Your task to perform on an android device: turn on the 24-hour format for clock Image 0: 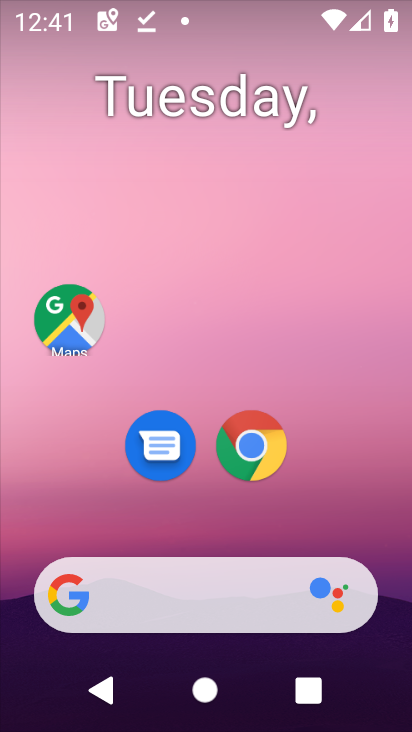
Step 0: drag from (344, 480) to (370, 323)
Your task to perform on an android device: turn on the 24-hour format for clock Image 1: 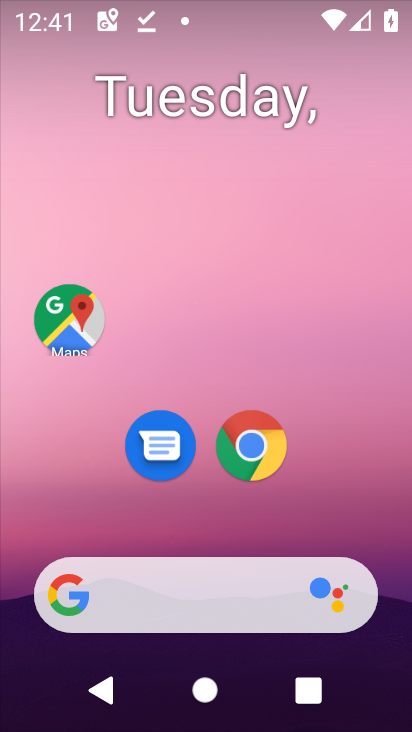
Step 1: drag from (325, 500) to (271, 57)
Your task to perform on an android device: turn on the 24-hour format for clock Image 2: 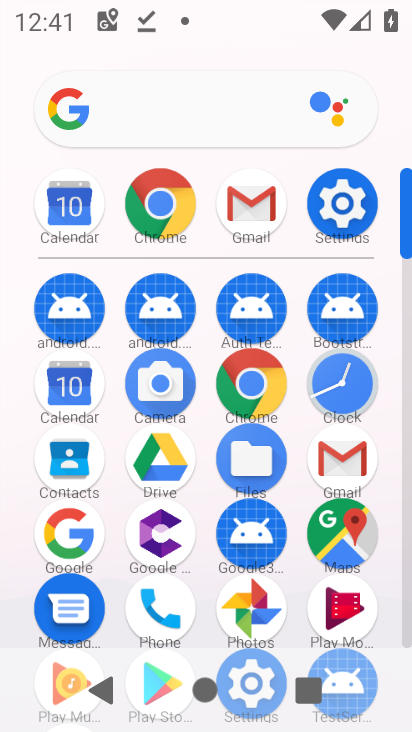
Step 2: click (334, 385)
Your task to perform on an android device: turn on the 24-hour format for clock Image 3: 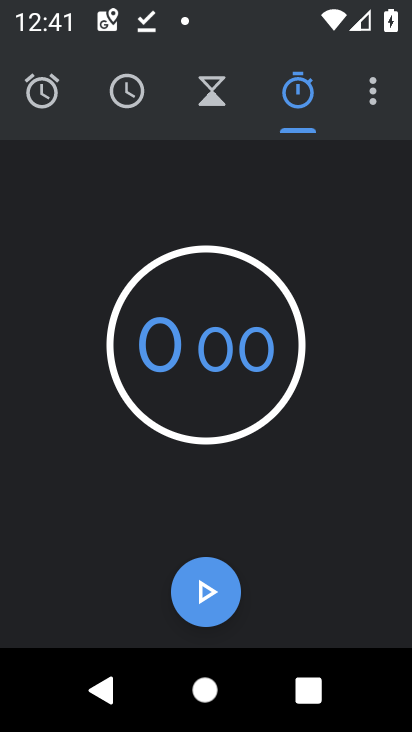
Step 3: click (371, 94)
Your task to perform on an android device: turn on the 24-hour format for clock Image 4: 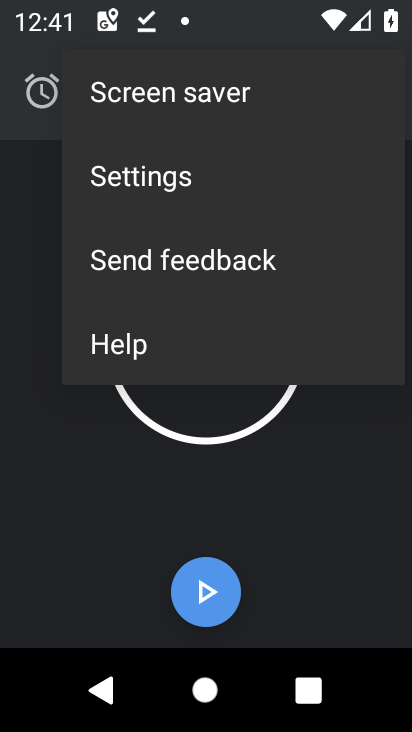
Step 4: click (164, 181)
Your task to perform on an android device: turn on the 24-hour format for clock Image 5: 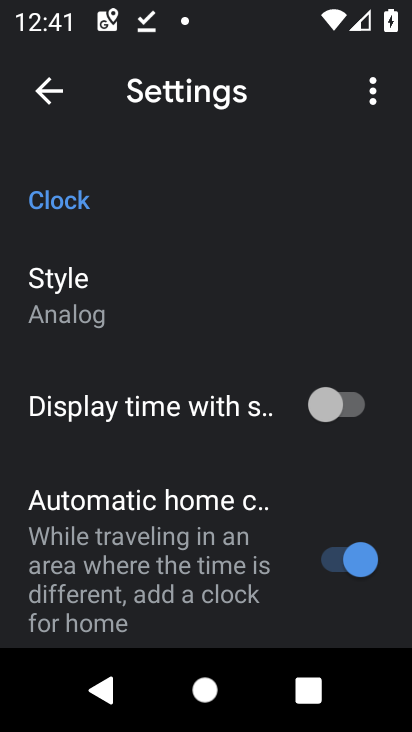
Step 5: drag from (215, 448) to (165, 169)
Your task to perform on an android device: turn on the 24-hour format for clock Image 6: 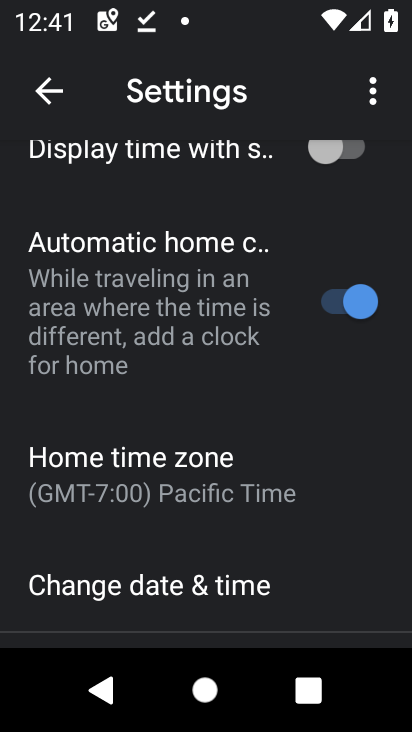
Step 6: drag from (208, 521) to (166, 233)
Your task to perform on an android device: turn on the 24-hour format for clock Image 7: 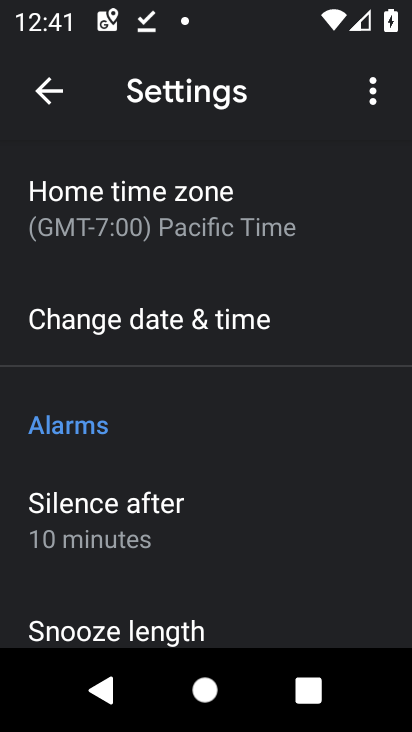
Step 7: drag from (161, 546) to (132, 307)
Your task to perform on an android device: turn on the 24-hour format for clock Image 8: 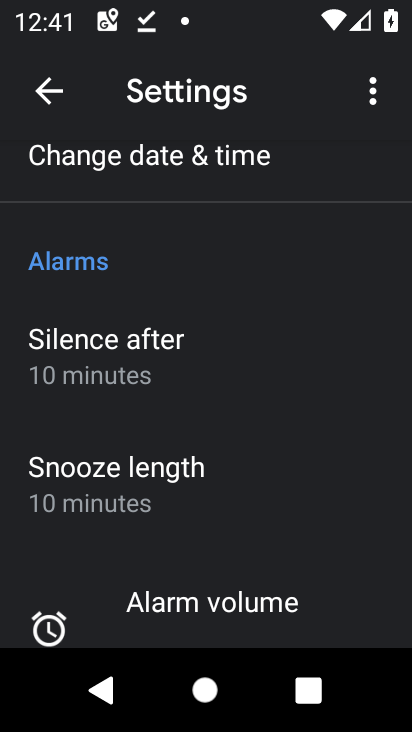
Step 8: click (147, 162)
Your task to perform on an android device: turn on the 24-hour format for clock Image 9: 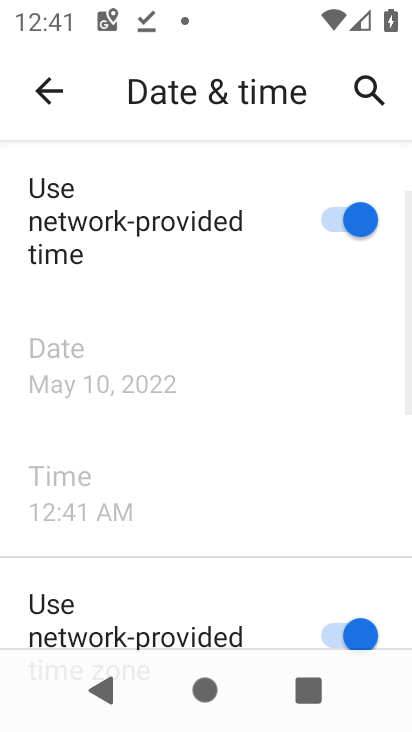
Step 9: drag from (267, 469) to (203, 156)
Your task to perform on an android device: turn on the 24-hour format for clock Image 10: 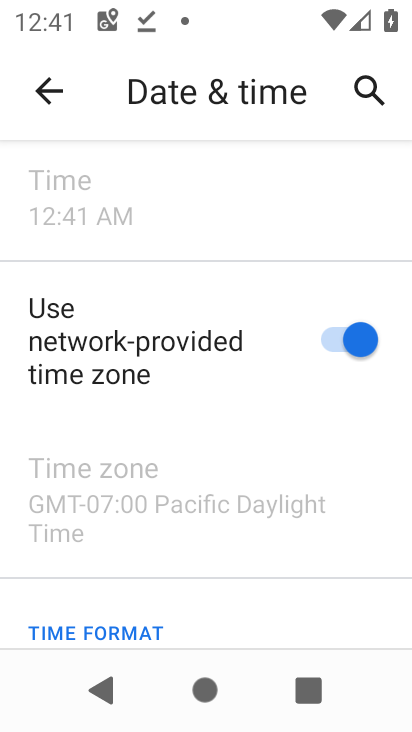
Step 10: drag from (224, 450) to (188, 205)
Your task to perform on an android device: turn on the 24-hour format for clock Image 11: 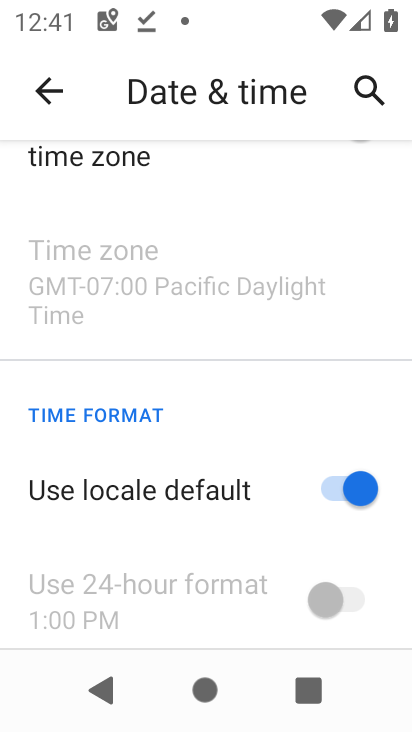
Step 11: click (366, 489)
Your task to perform on an android device: turn on the 24-hour format for clock Image 12: 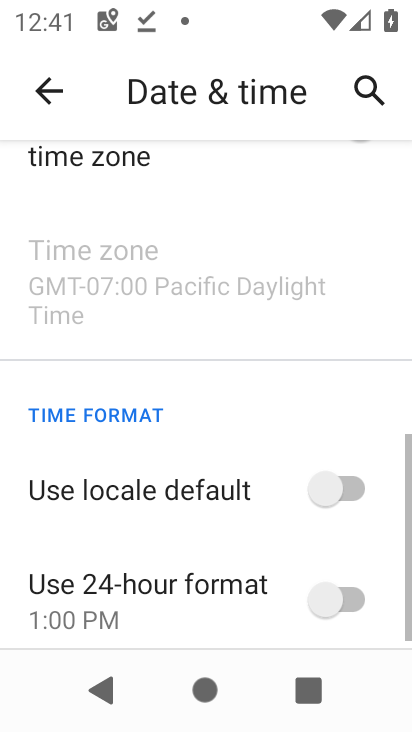
Step 12: click (341, 596)
Your task to perform on an android device: turn on the 24-hour format for clock Image 13: 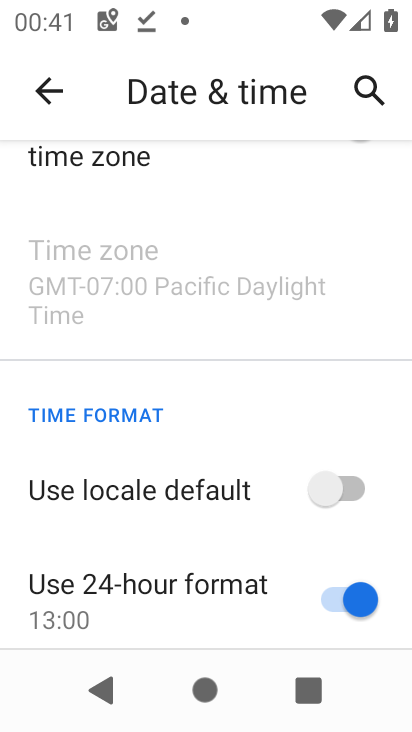
Step 13: task complete